Your task to perform on an android device: Search for pizza restaurants on Maps Image 0: 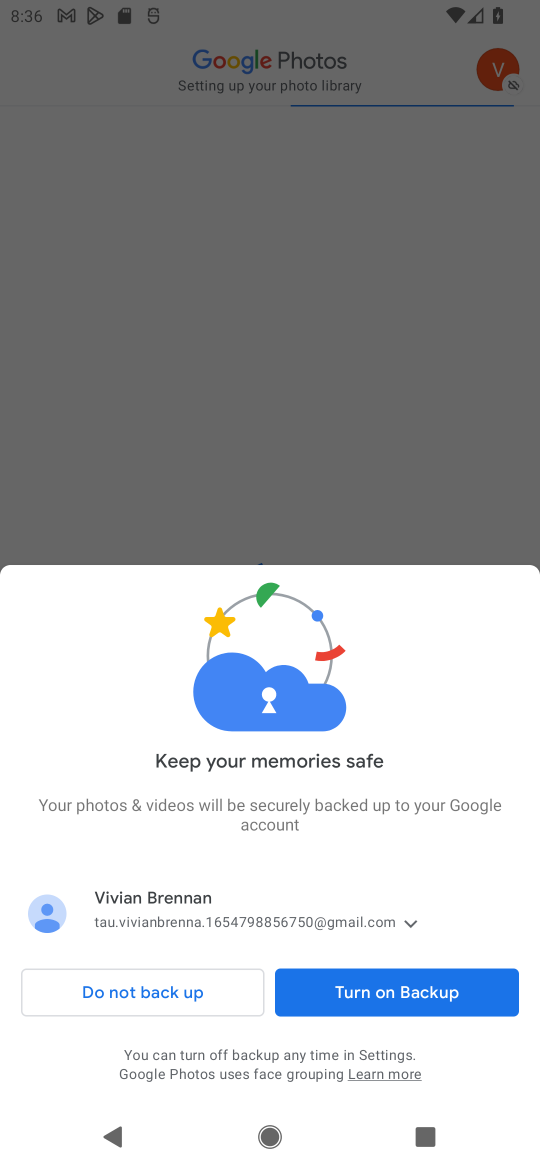
Step 0: press back button
Your task to perform on an android device: Search for pizza restaurants on Maps Image 1: 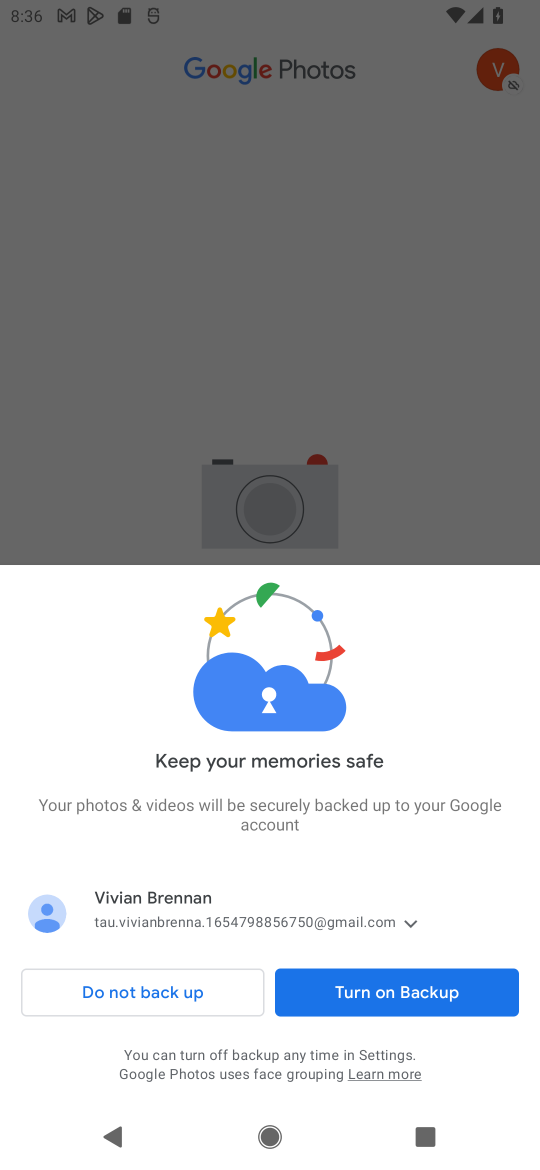
Step 1: press home button
Your task to perform on an android device: Search for pizza restaurants on Maps Image 2: 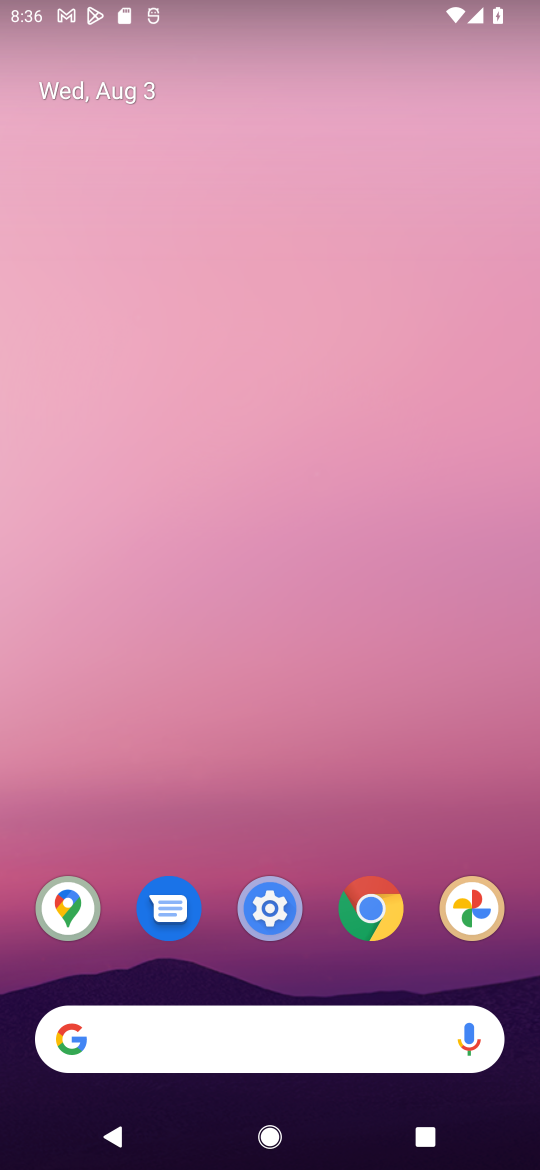
Step 2: drag from (255, 1044) to (190, 429)
Your task to perform on an android device: Search for pizza restaurants on Maps Image 3: 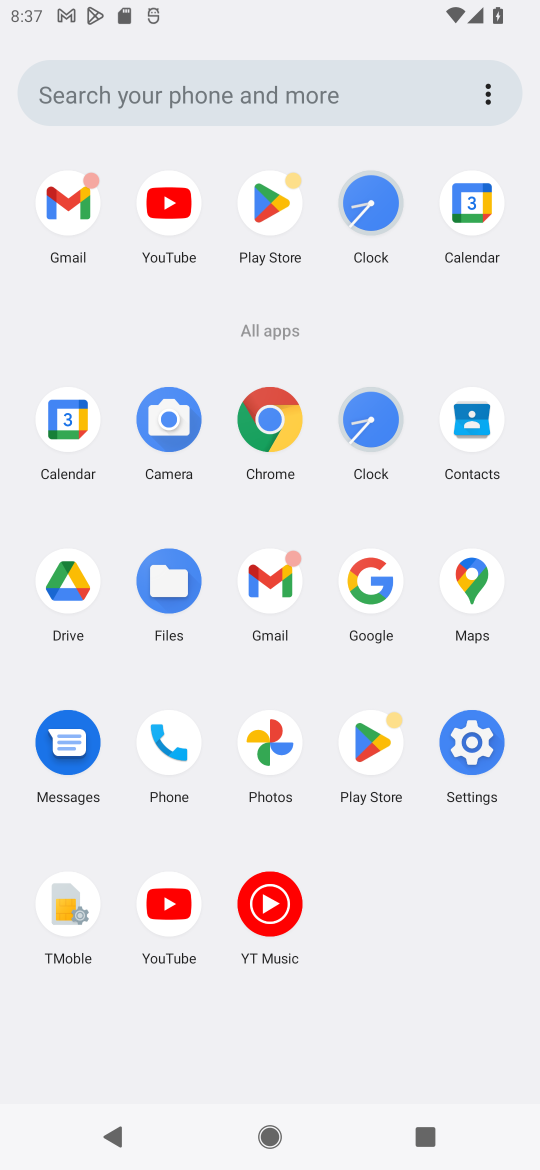
Step 3: click (457, 579)
Your task to perform on an android device: Search for pizza restaurants on Maps Image 4: 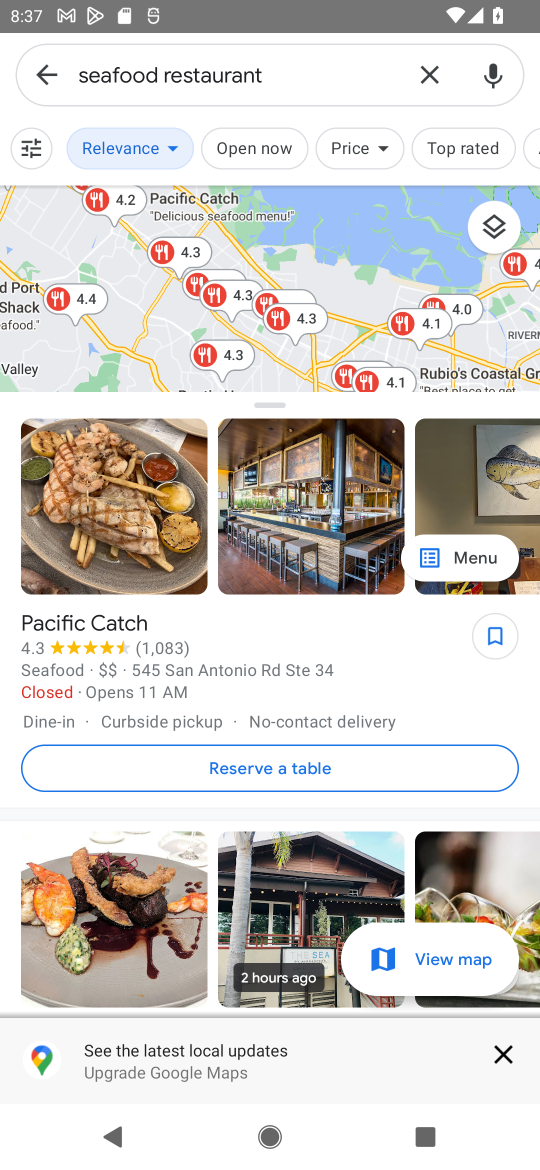
Step 4: click (426, 61)
Your task to perform on an android device: Search for pizza restaurants on Maps Image 5: 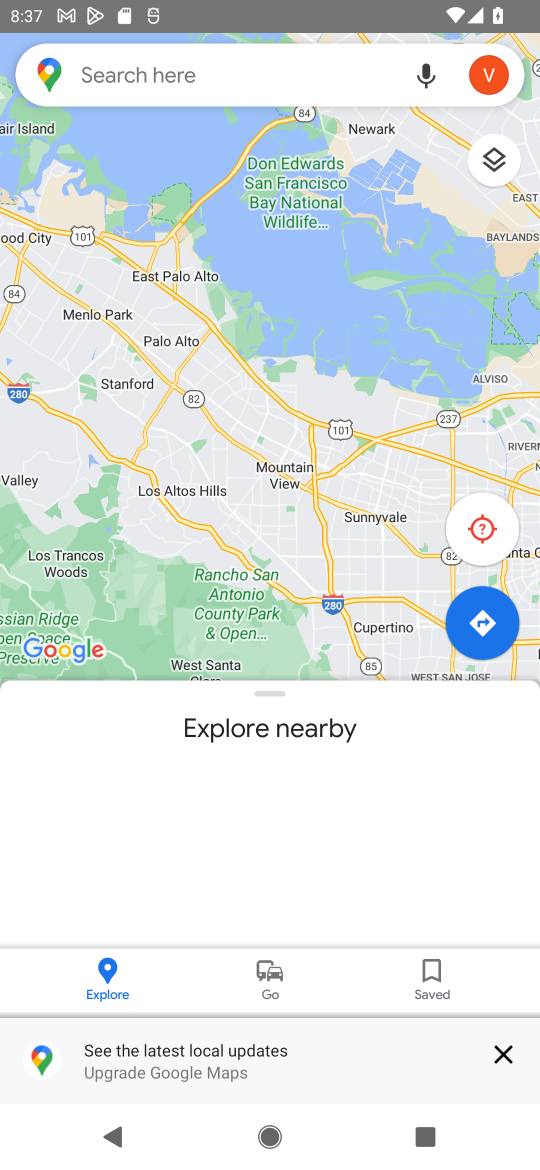
Step 5: click (197, 91)
Your task to perform on an android device: Search for pizza restaurants on Maps Image 6: 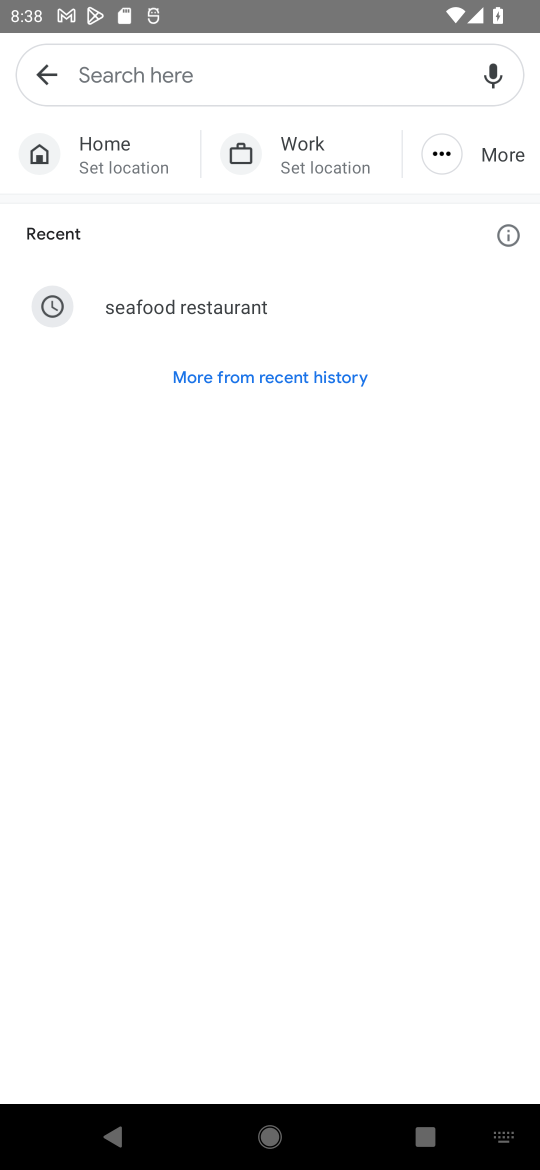
Step 6: type "pizza restaurants"
Your task to perform on an android device: Search for pizza restaurants on Maps Image 7: 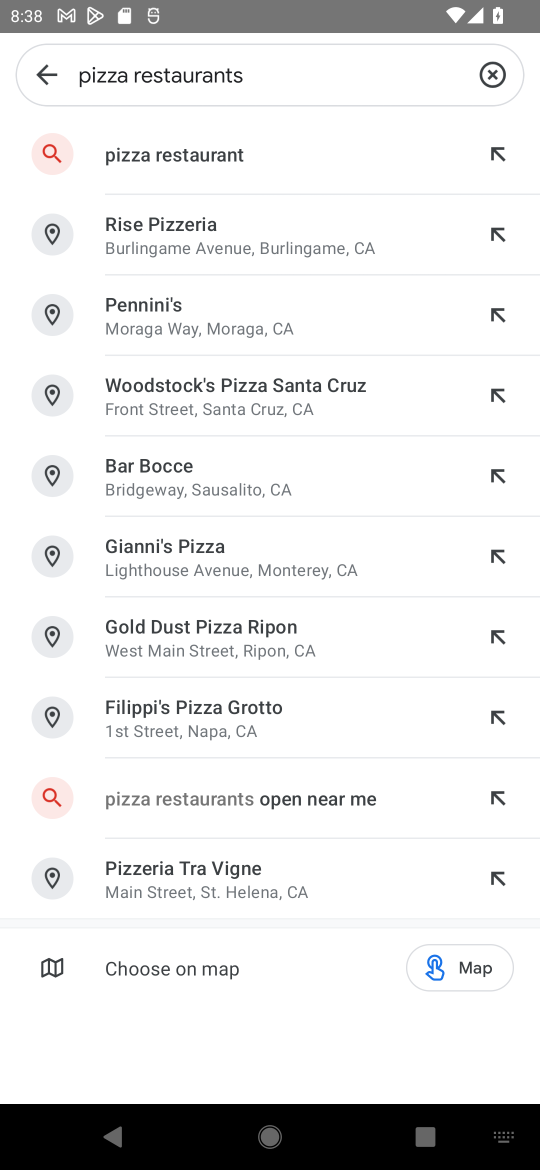
Step 7: click (272, 140)
Your task to perform on an android device: Search for pizza restaurants on Maps Image 8: 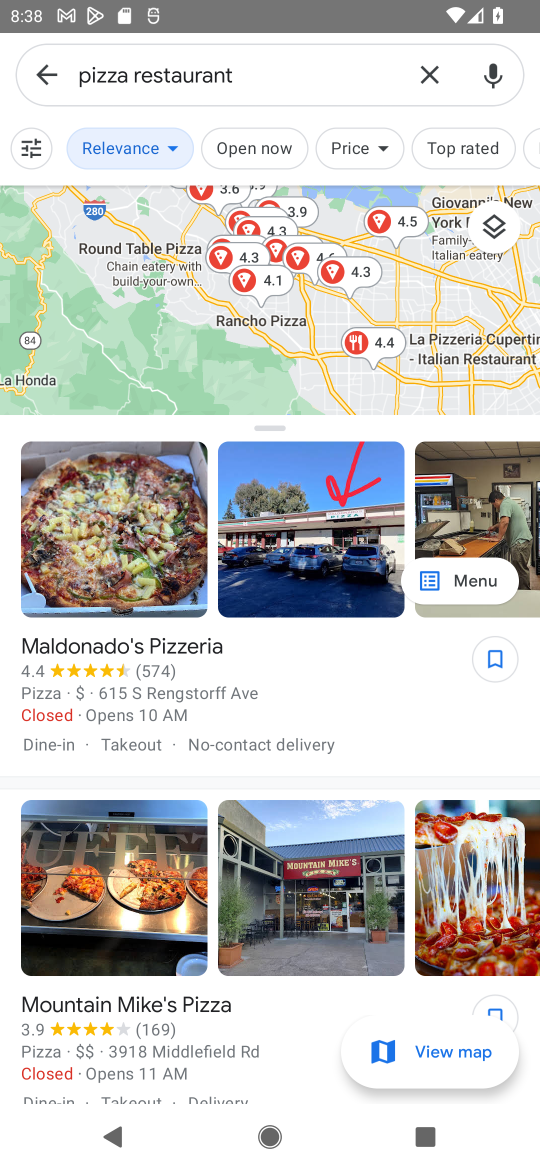
Step 8: task complete